Your task to perform on an android device: change notifications settings Image 0: 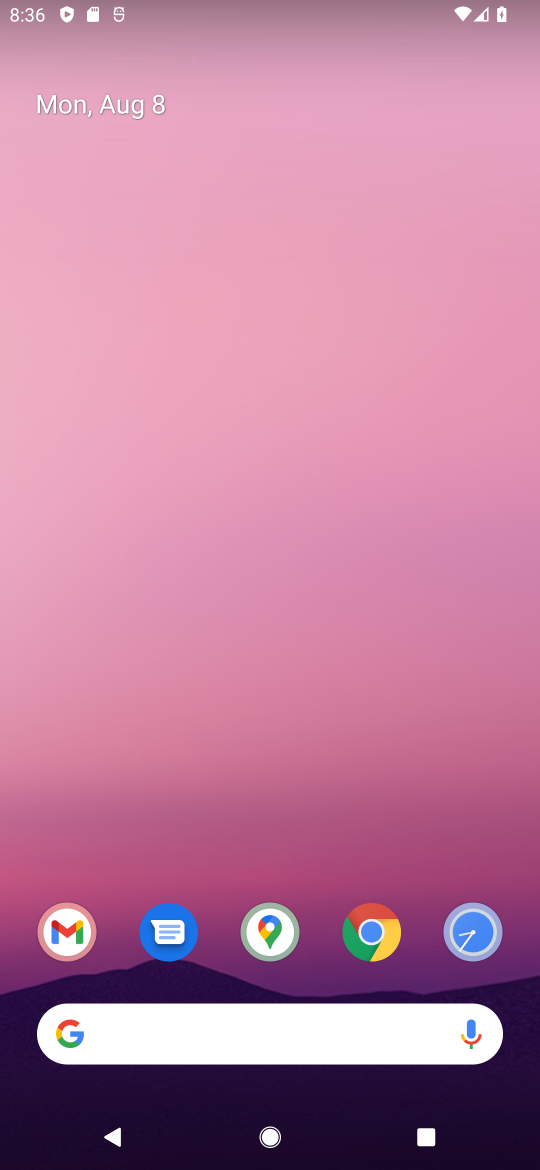
Step 0: drag from (325, 437) to (388, 62)
Your task to perform on an android device: change notifications settings Image 1: 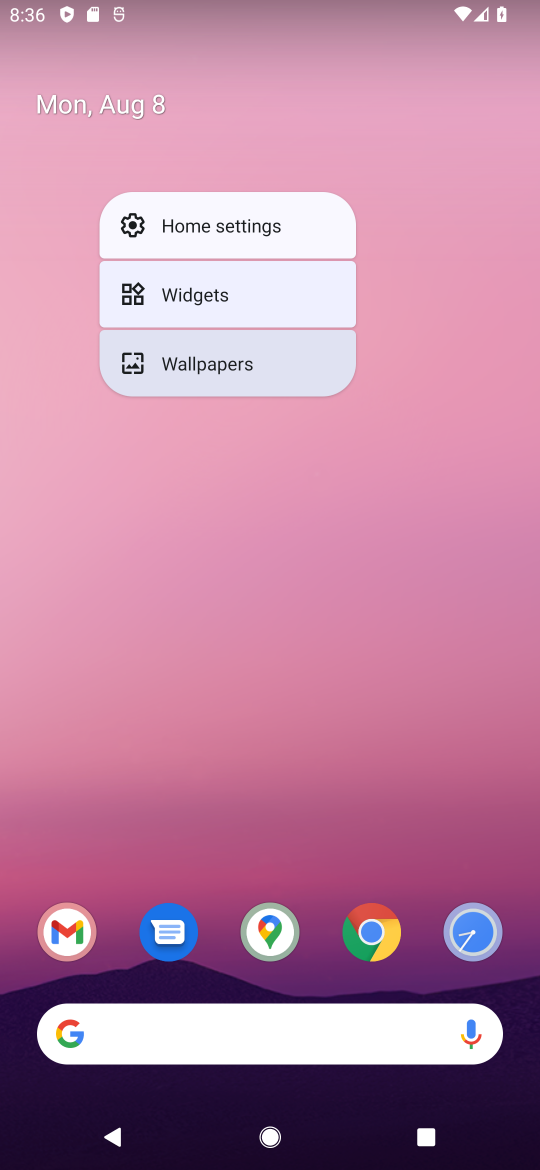
Step 1: click (289, 854)
Your task to perform on an android device: change notifications settings Image 2: 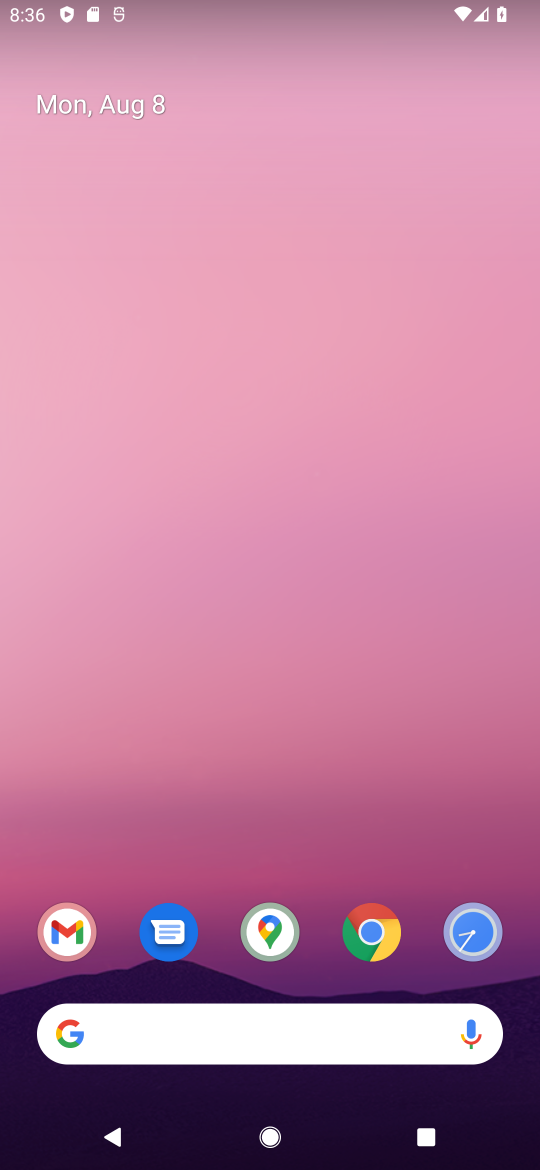
Step 2: drag from (203, 889) to (282, 11)
Your task to perform on an android device: change notifications settings Image 3: 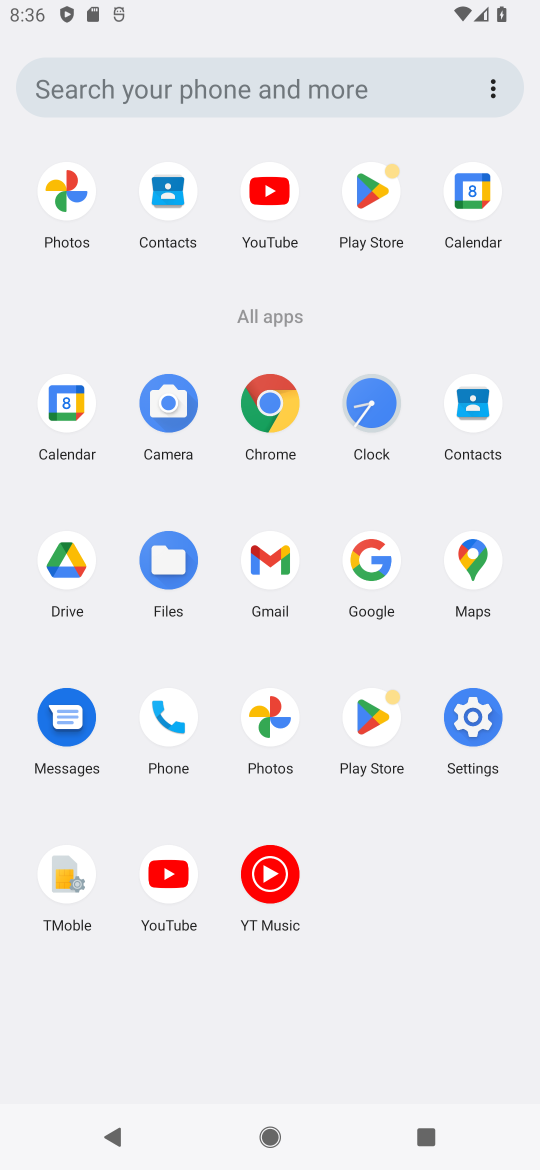
Step 3: click (465, 734)
Your task to perform on an android device: change notifications settings Image 4: 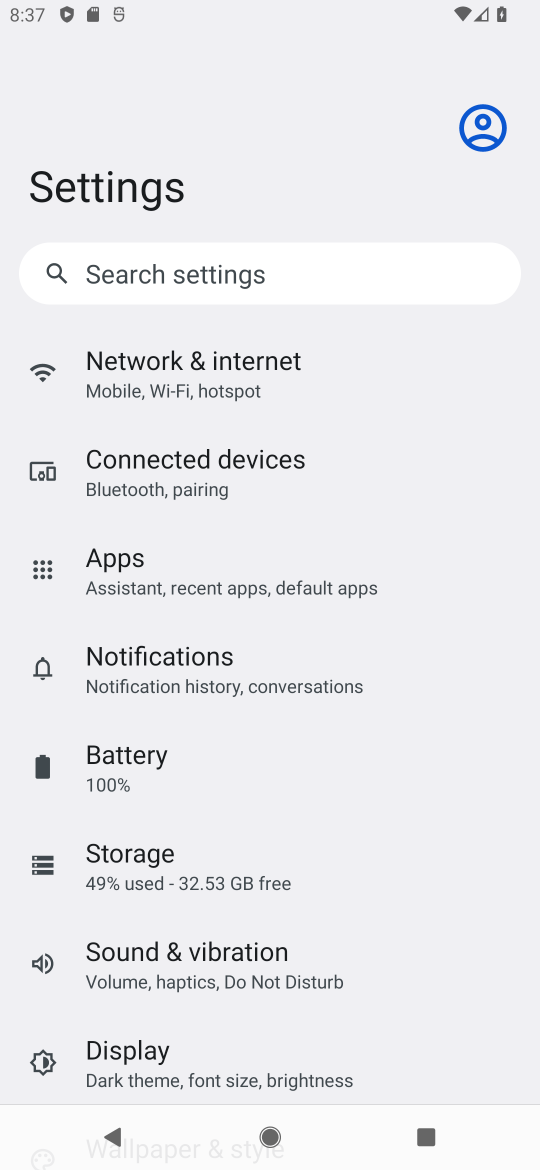
Step 4: click (255, 676)
Your task to perform on an android device: change notifications settings Image 5: 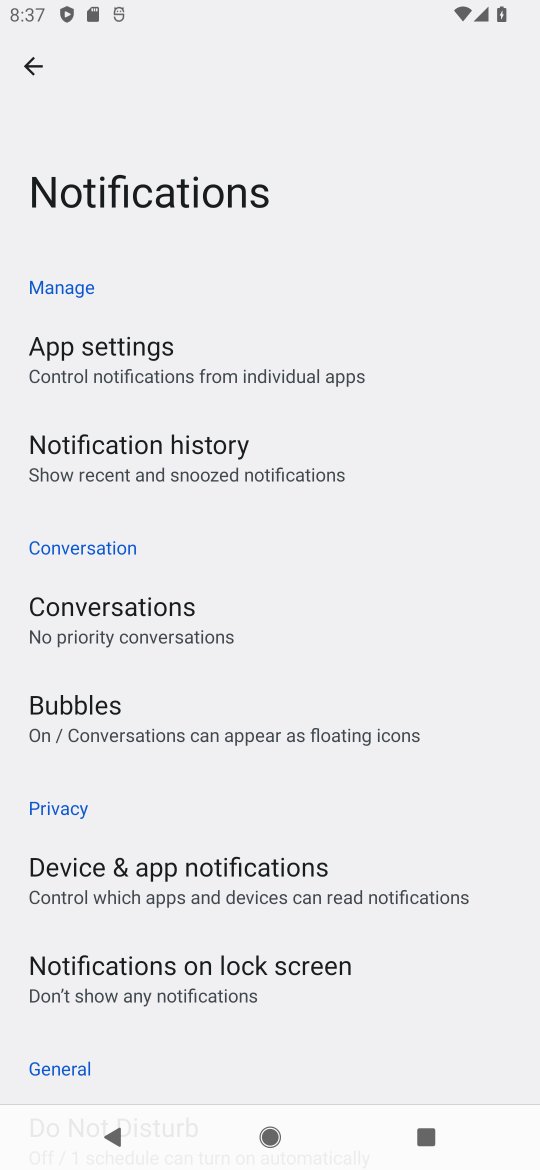
Step 5: drag from (264, 1028) to (411, 134)
Your task to perform on an android device: change notifications settings Image 6: 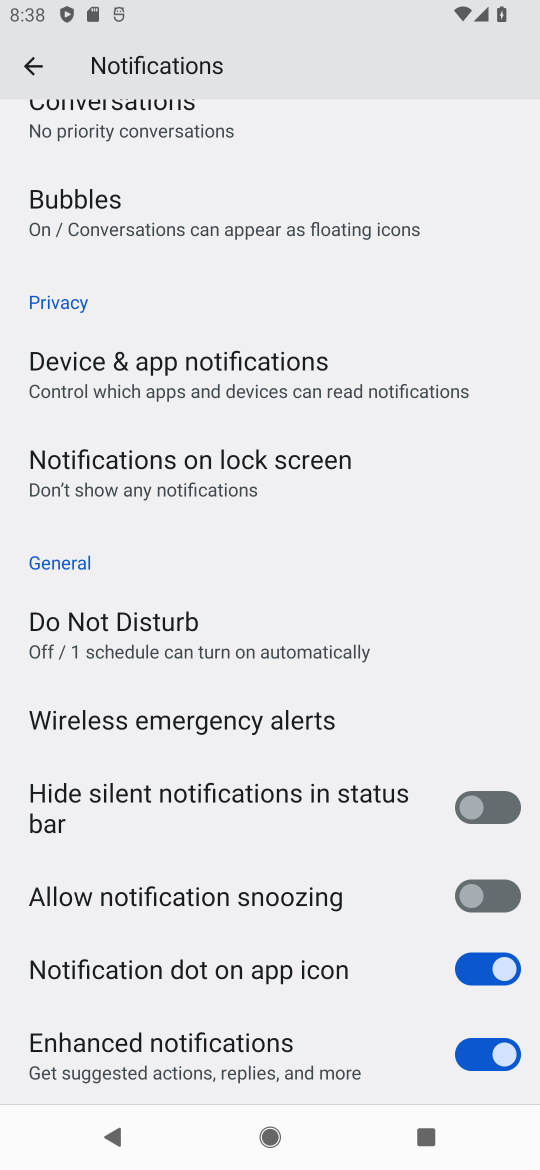
Step 6: click (462, 897)
Your task to perform on an android device: change notifications settings Image 7: 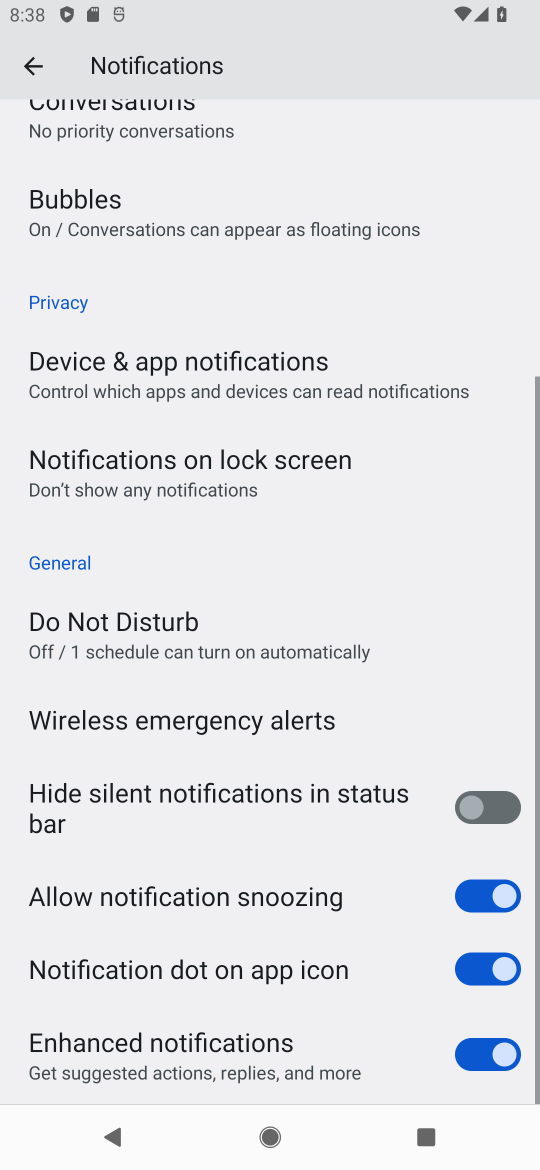
Step 7: task complete